Your task to perform on an android device: open app "Grab" (install if not already installed) Image 0: 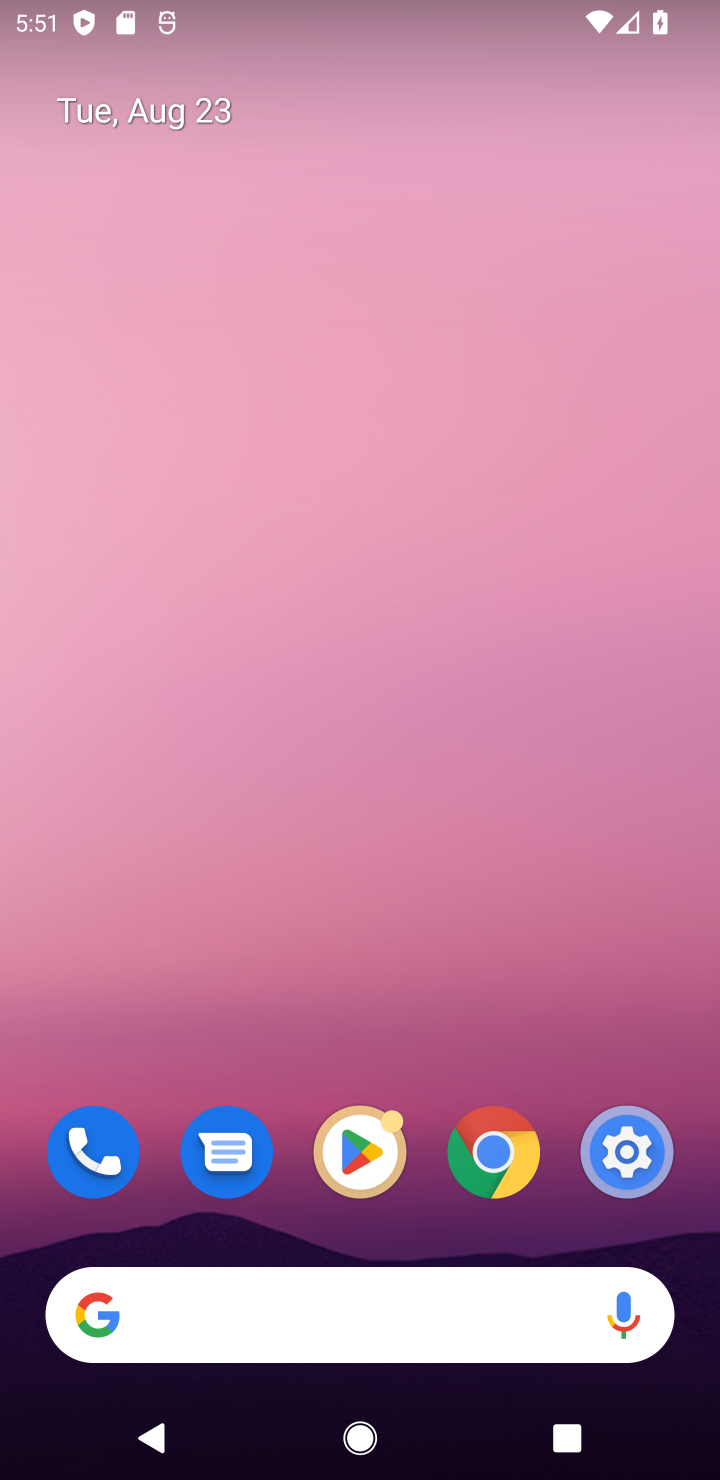
Step 0: click (365, 1123)
Your task to perform on an android device: open app "Grab" (install if not already installed) Image 1: 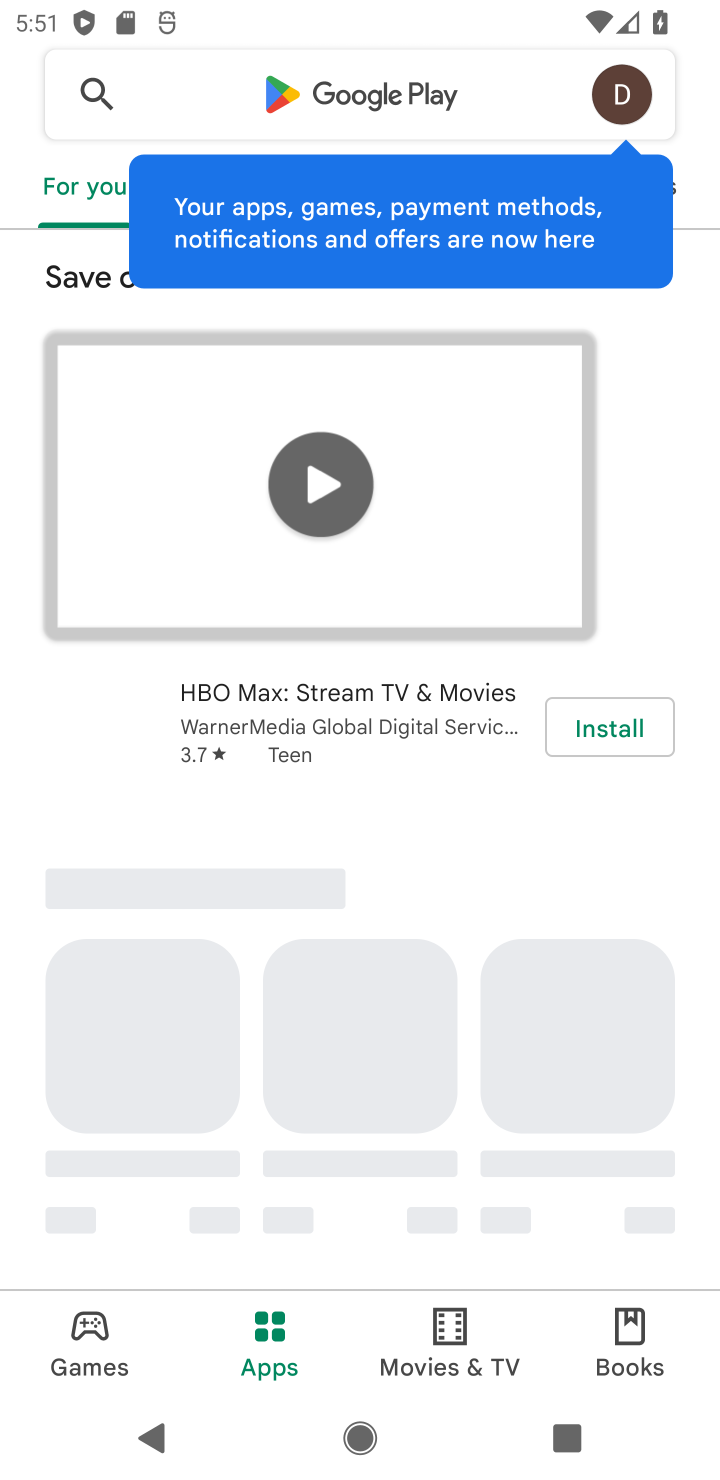
Step 1: click (381, 108)
Your task to perform on an android device: open app "Grab" (install if not already installed) Image 2: 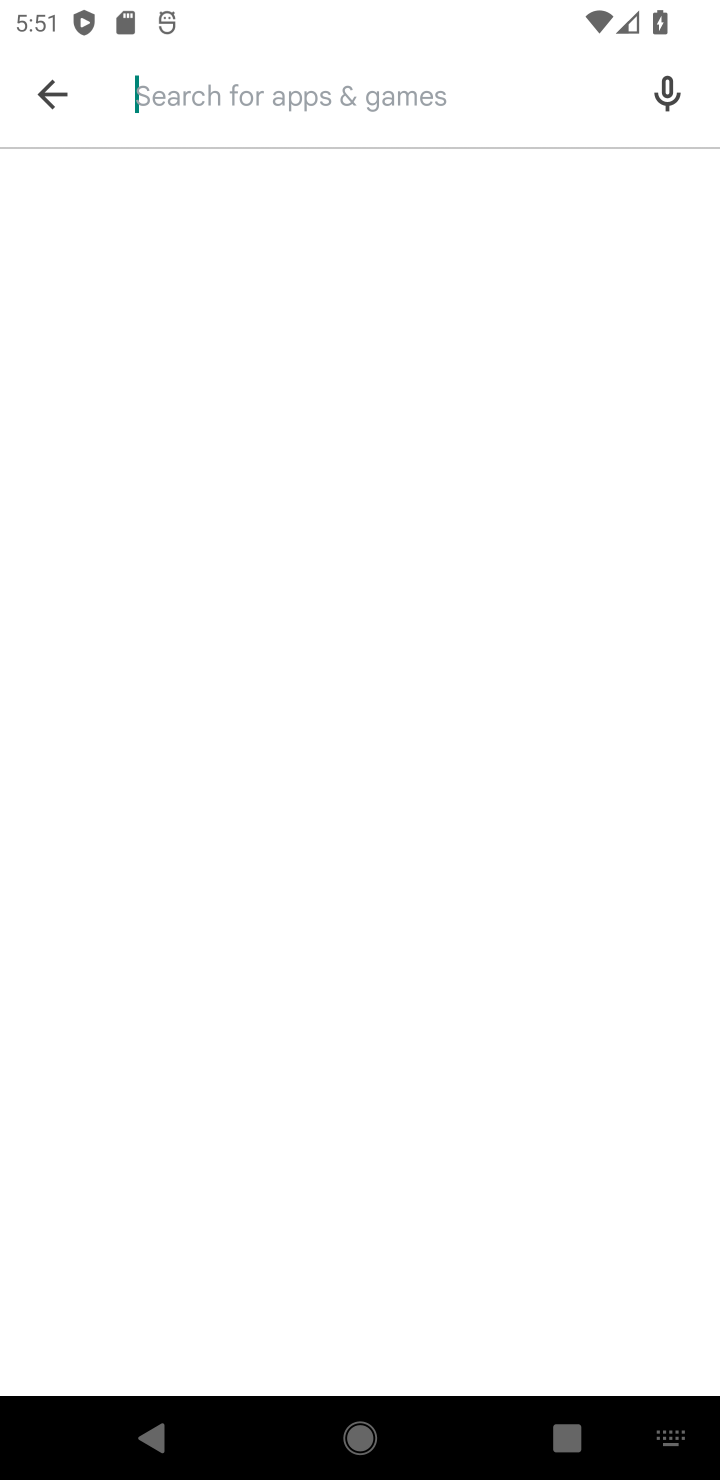
Step 2: type "grab"
Your task to perform on an android device: open app "Grab" (install if not already installed) Image 3: 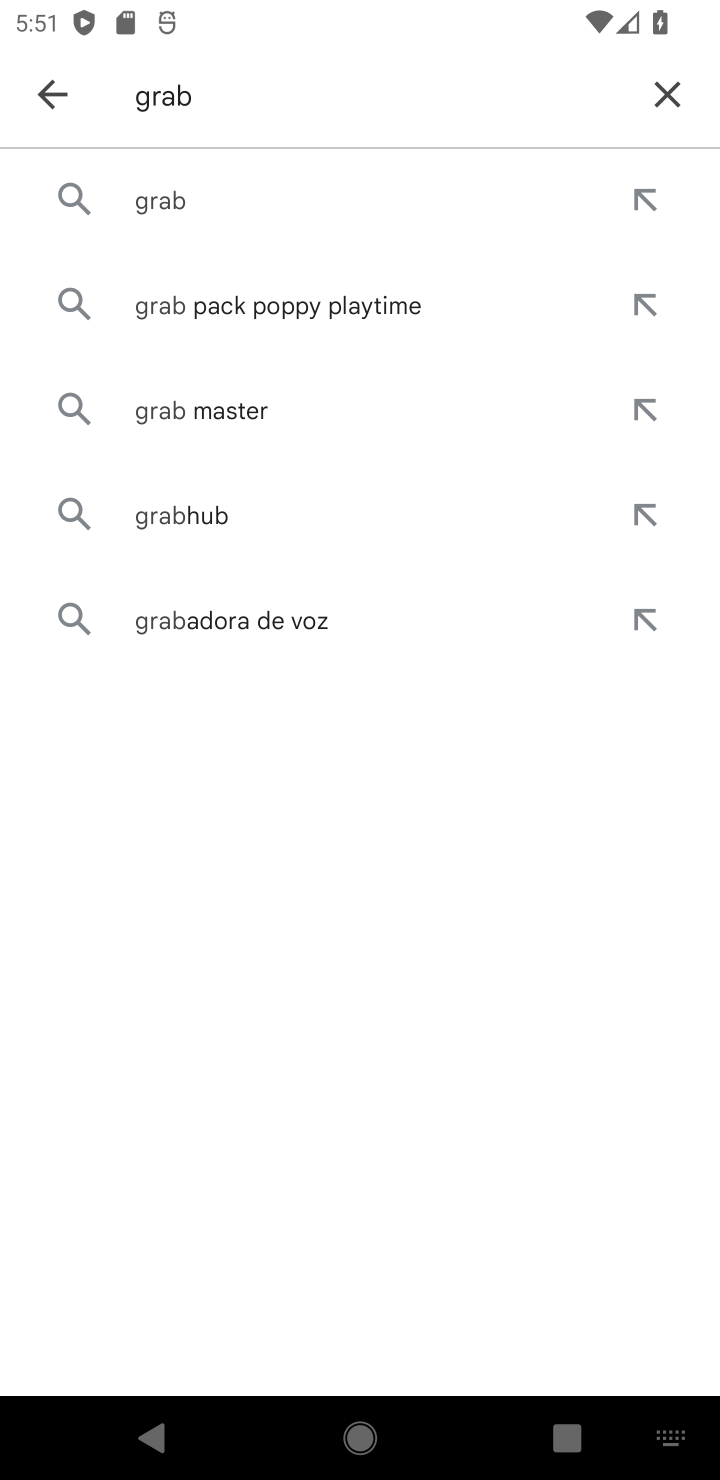
Step 3: click (166, 223)
Your task to perform on an android device: open app "Grab" (install if not already installed) Image 4: 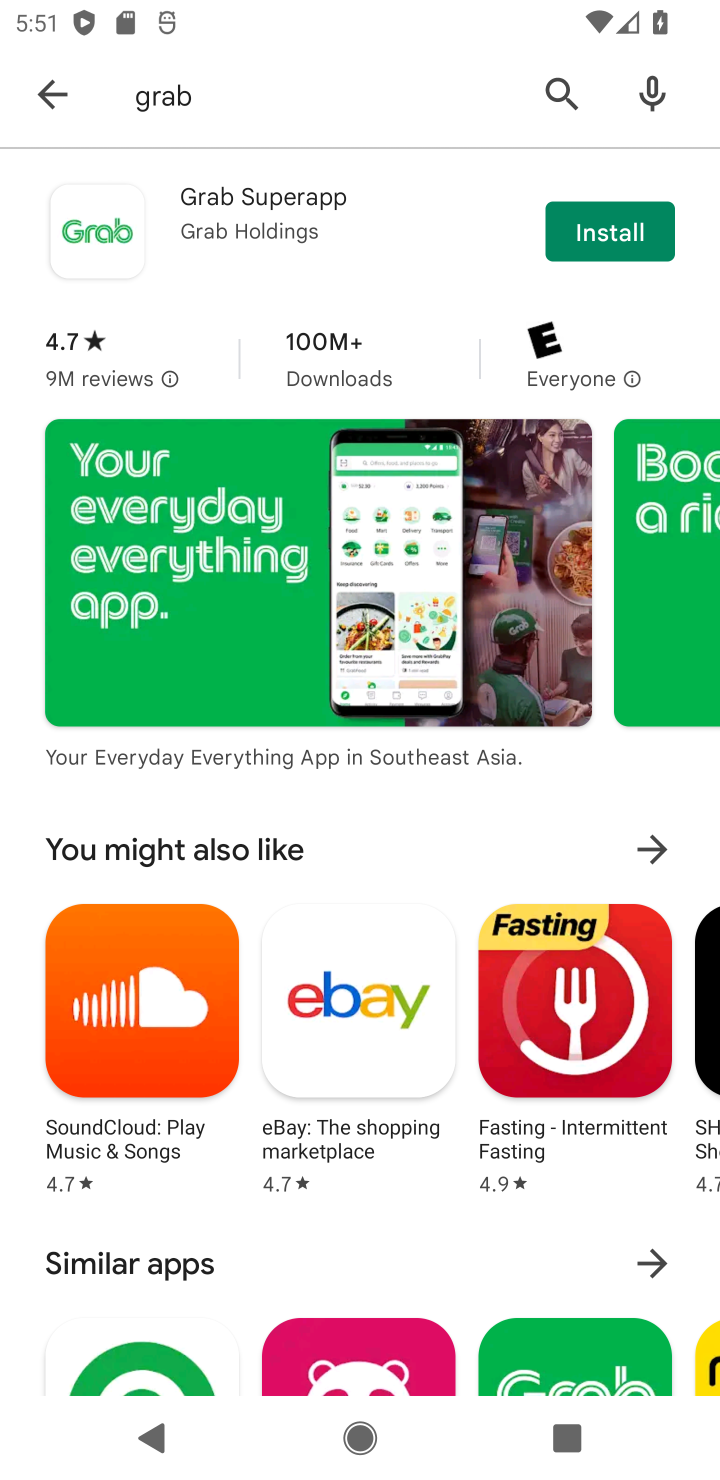
Step 4: click (604, 238)
Your task to perform on an android device: open app "Grab" (install if not already installed) Image 5: 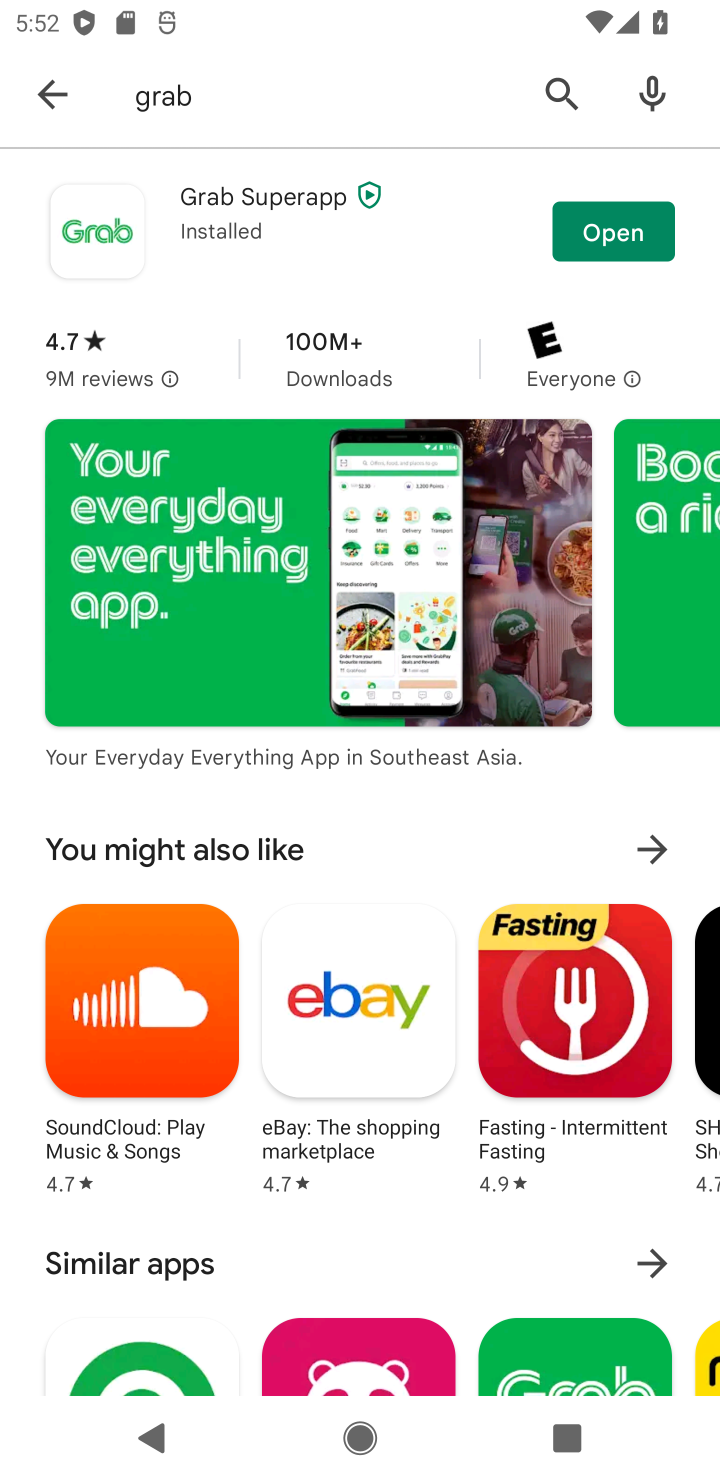
Step 5: click (594, 227)
Your task to perform on an android device: open app "Grab" (install if not already installed) Image 6: 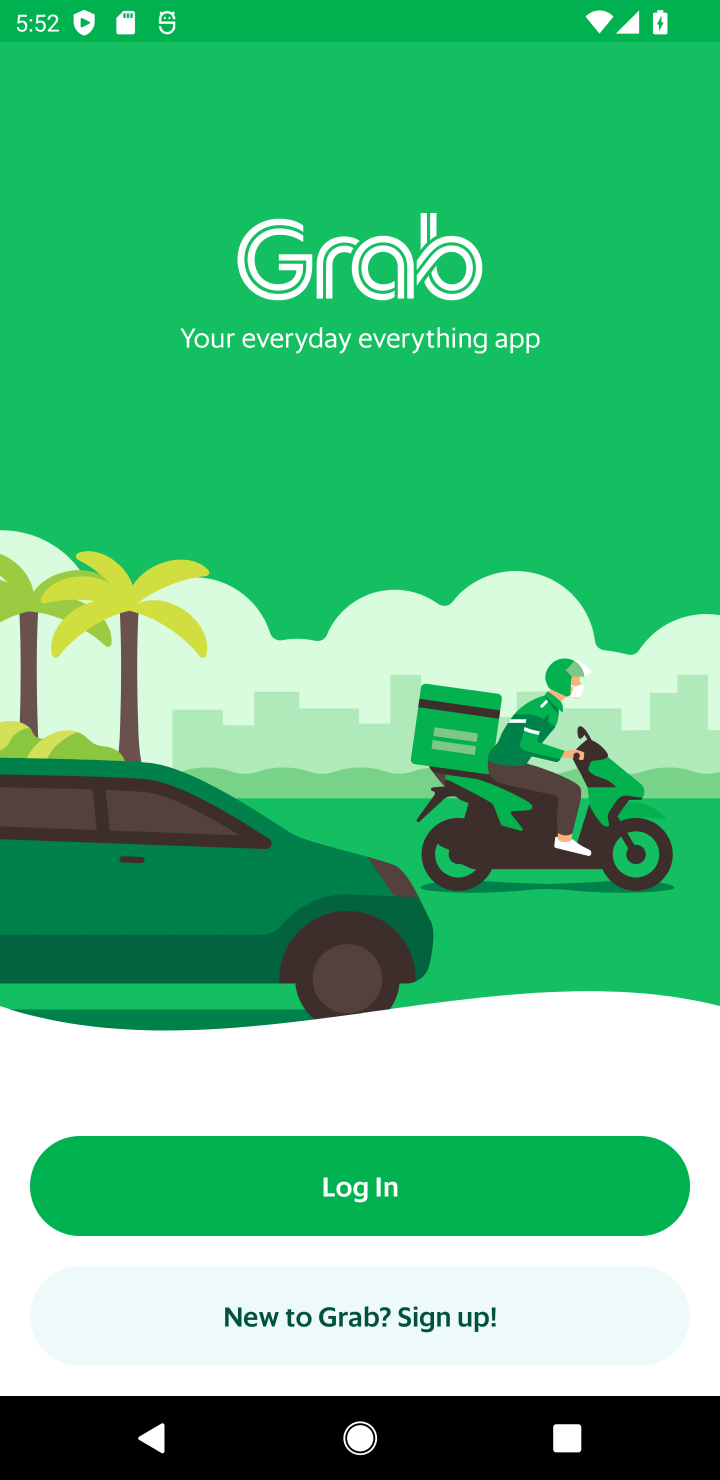
Step 6: task complete